Your task to perform on an android device: What's on my calendar tomorrow? Image 0: 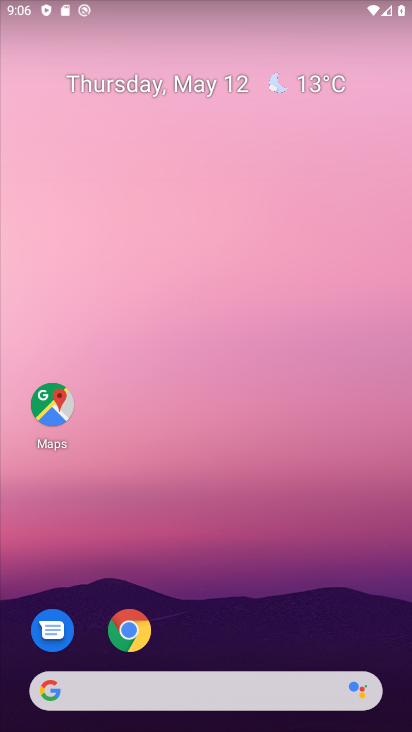
Step 0: drag from (175, 672) to (298, 89)
Your task to perform on an android device: What's on my calendar tomorrow? Image 1: 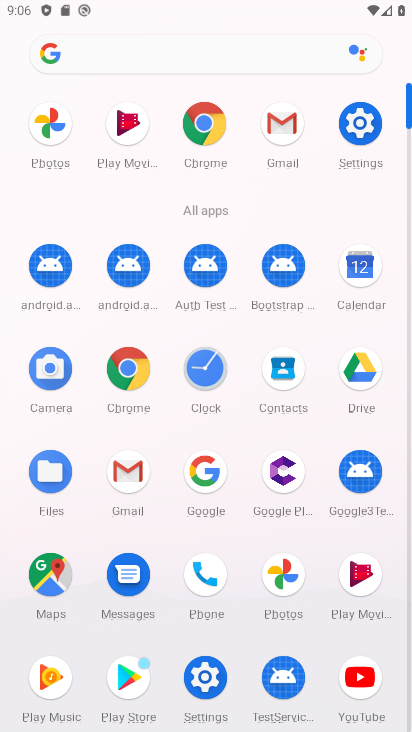
Step 1: click (351, 283)
Your task to perform on an android device: What's on my calendar tomorrow? Image 2: 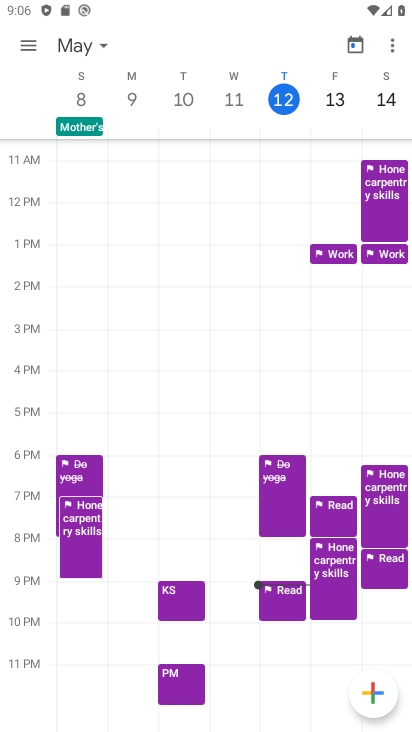
Step 2: click (12, 44)
Your task to perform on an android device: What's on my calendar tomorrow? Image 3: 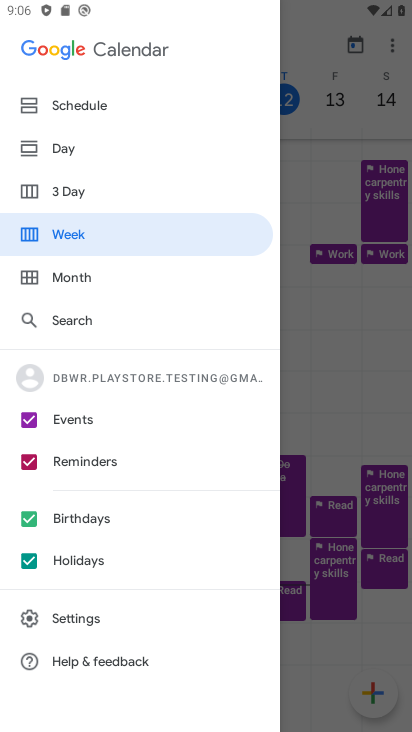
Step 3: click (73, 102)
Your task to perform on an android device: What's on my calendar tomorrow? Image 4: 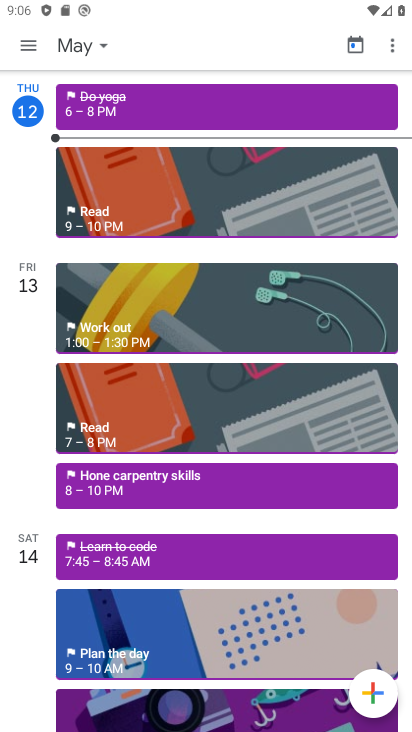
Step 4: task complete